Your task to perform on an android device: turn off wifi Image 0: 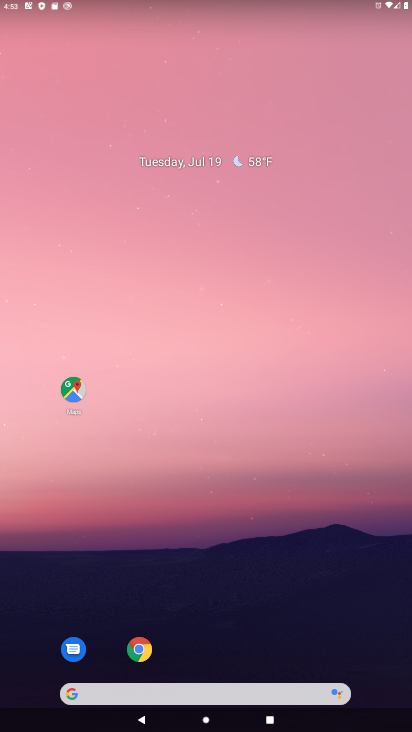
Step 0: drag from (188, 492) to (147, 140)
Your task to perform on an android device: turn off wifi Image 1: 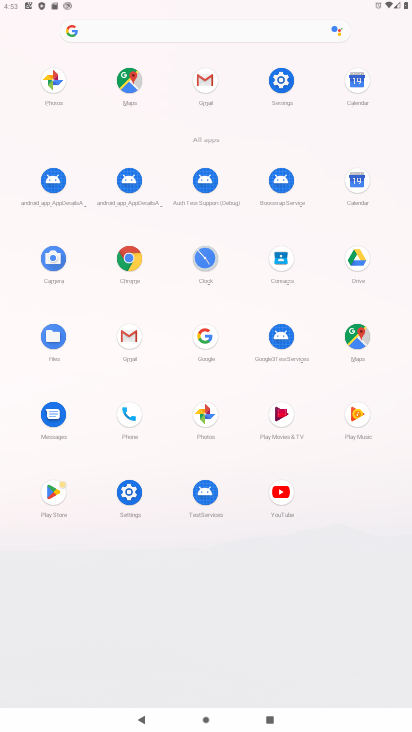
Step 1: click (285, 89)
Your task to perform on an android device: turn off wifi Image 2: 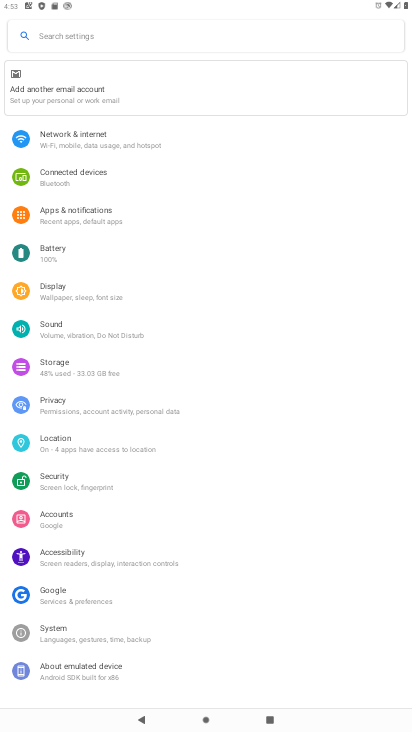
Step 2: click (109, 144)
Your task to perform on an android device: turn off wifi Image 3: 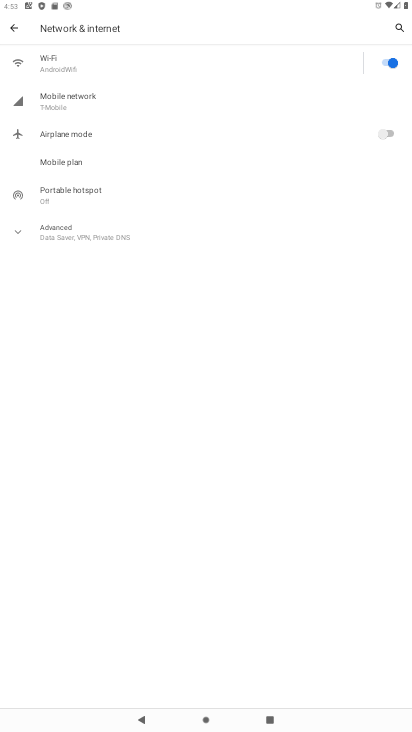
Step 3: click (387, 60)
Your task to perform on an android device: turn off wifi Image 4: 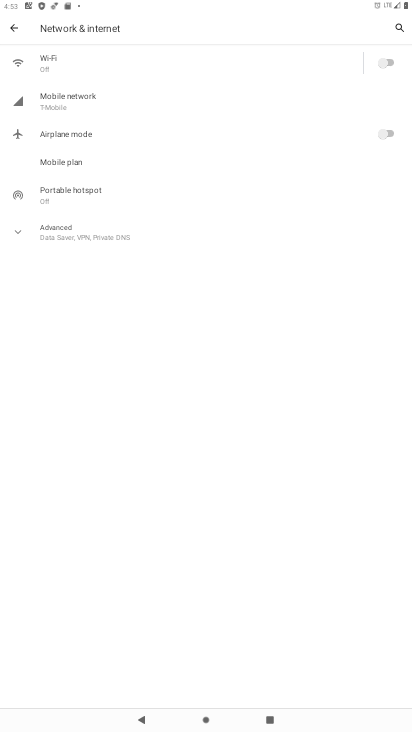
Step 4: task complete